Your task to perform on an android device: Go to accessibility settings Image 0: 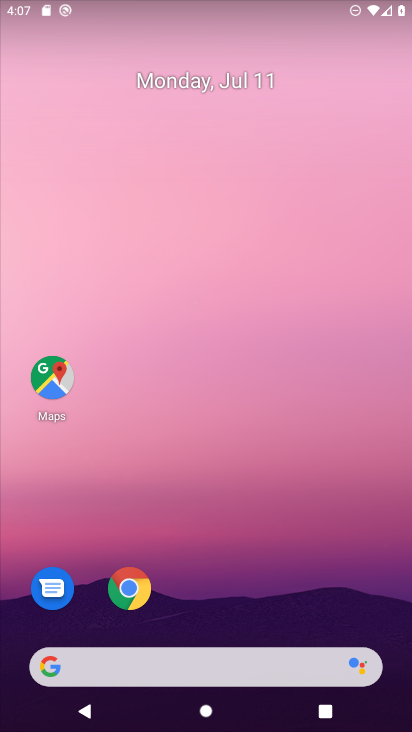
Step 0: press home button
Your task to perform on an android device: Go to accessibility settings Image 1: 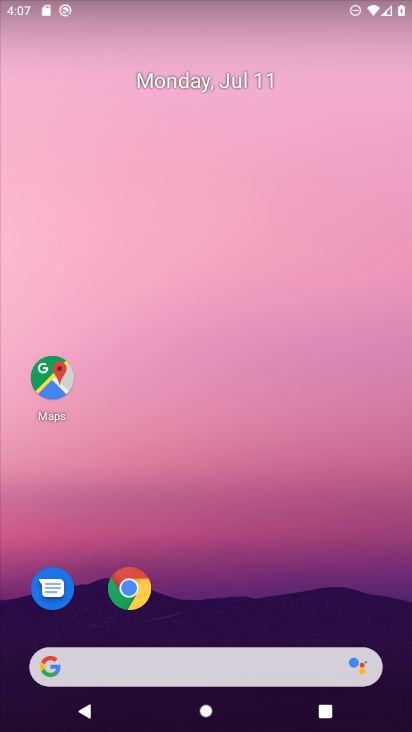
Step 1: drag from (227, 593) to (239, 78)
Your task to perform on an android device: Go to accessibility settings Image 2: 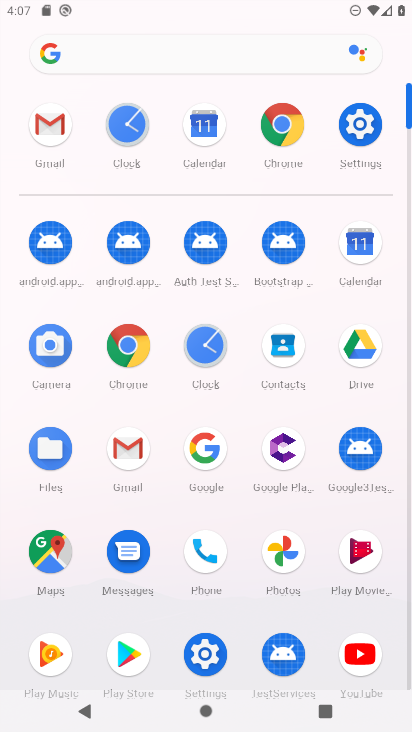
Step 2: press home button
Your task to perform on an android device: Go to accessibility settings Image 3: 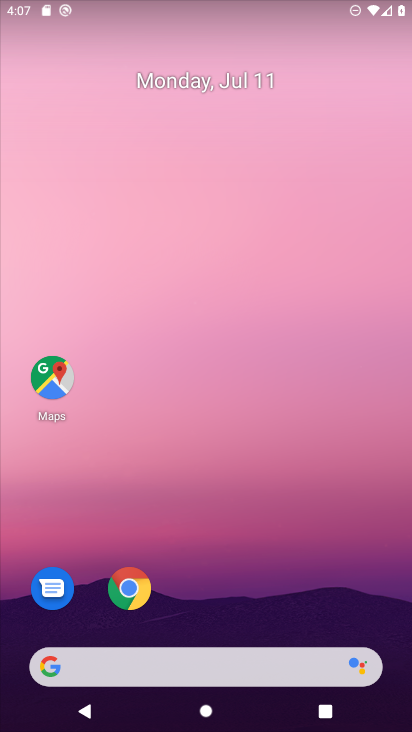
Step 3: drag from (268, 594) to (283, 40)
Your task to perform on an android device: Go to accessibility settings Image 4: 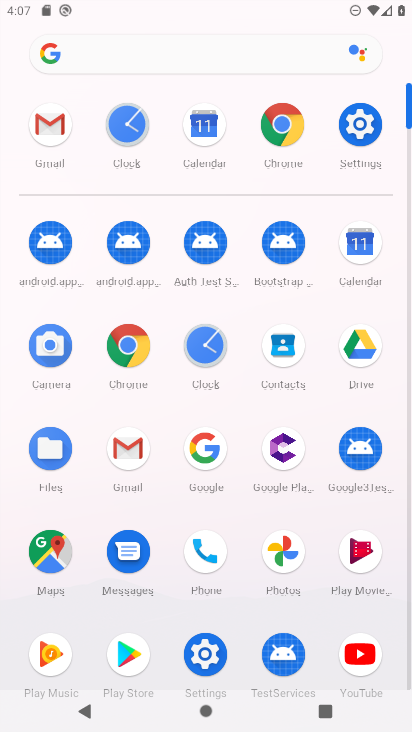
Step 4: click (358, 126)
Your task to perform on an android device: Go to accessibility settings Image 5: 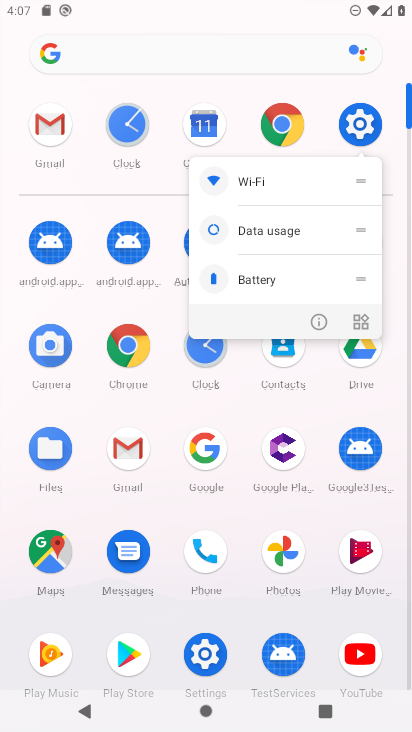
Step 5: click (358, 126)
Your task to perform on an android device: Go to accessibility settings Image 6: 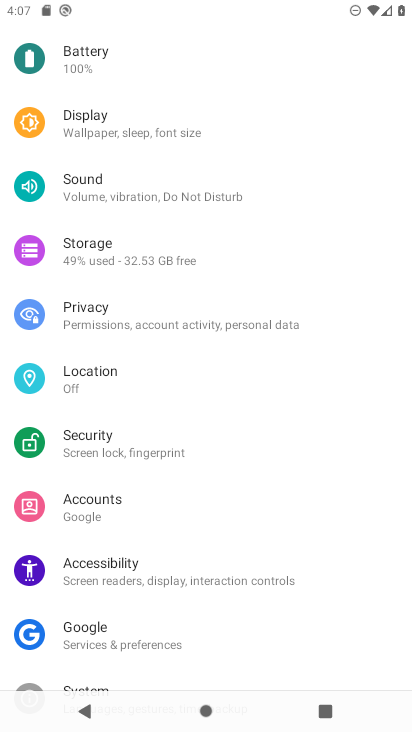
Step 6: click (113, 565)
Your task to perform on an android device: Go to accessibility settings Image 7: 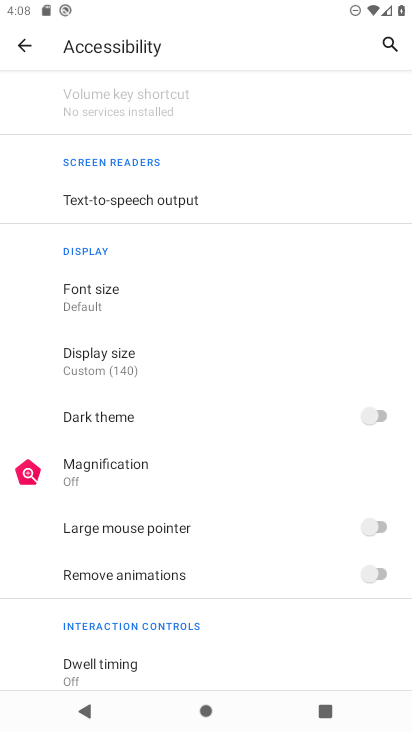
Step 7: task complete